Your task to perform on an android device: Check the weather Image 0: 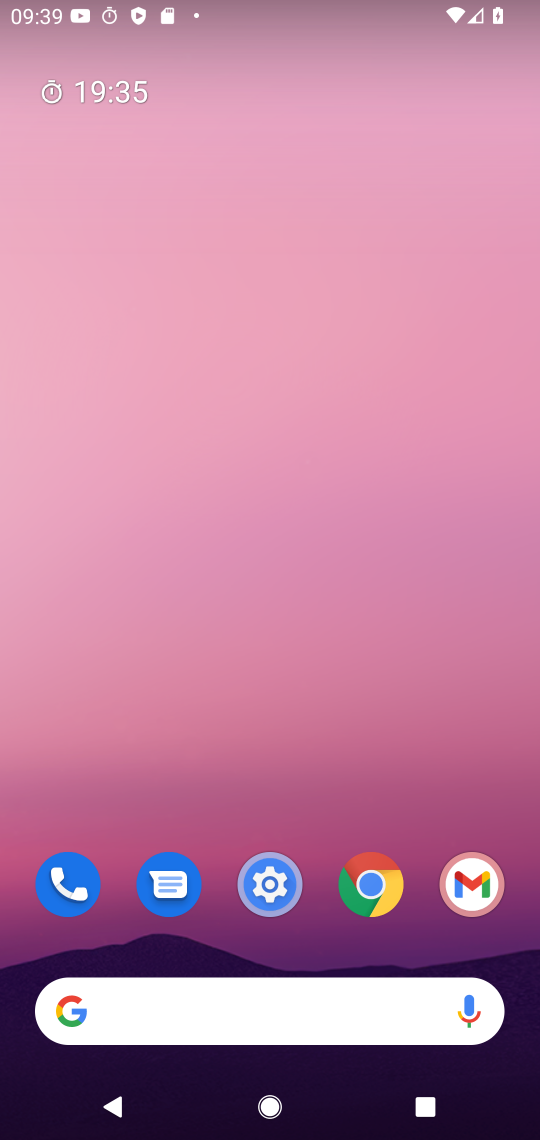
Step 0: drag from (278, 816) to (267, 275)
Your task to perform on an android device: Check the weather Image 1: 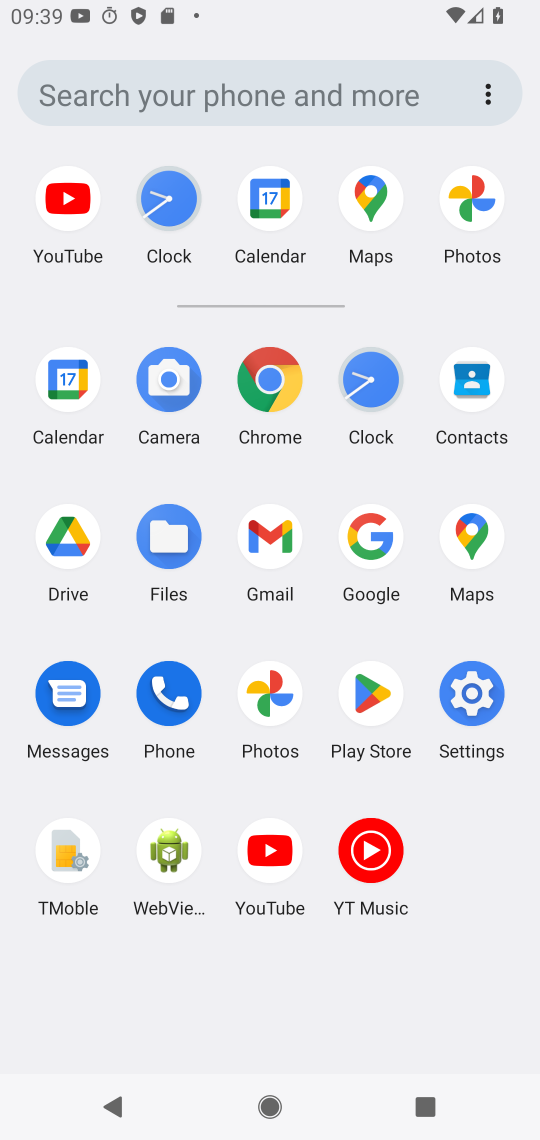
Step 1: click (375, 526)
Your task to perform on an android device: Check the weather Image 2: 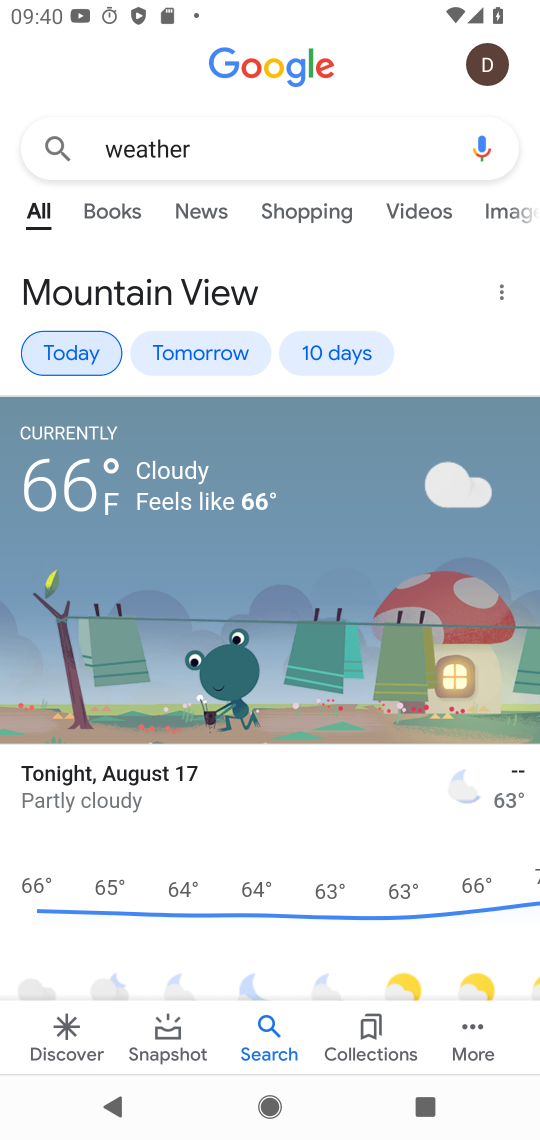
Step 2: task complete